Your task to perform on an android device: check data usage Image 0: 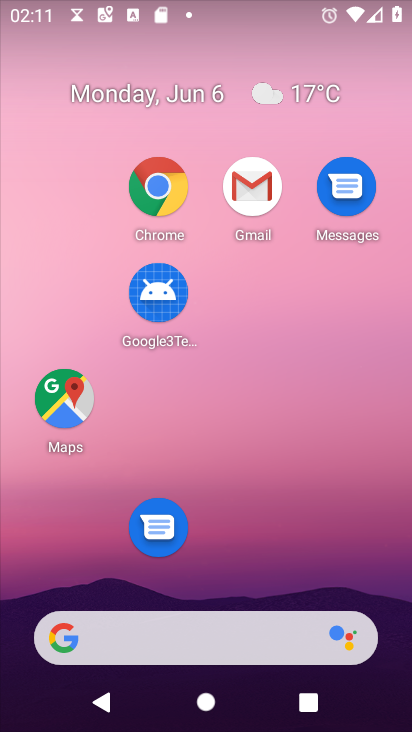
Step 0: drag from (286, 562) to (228, 83)
Your task to perform on an android device: check data usage Image 1: 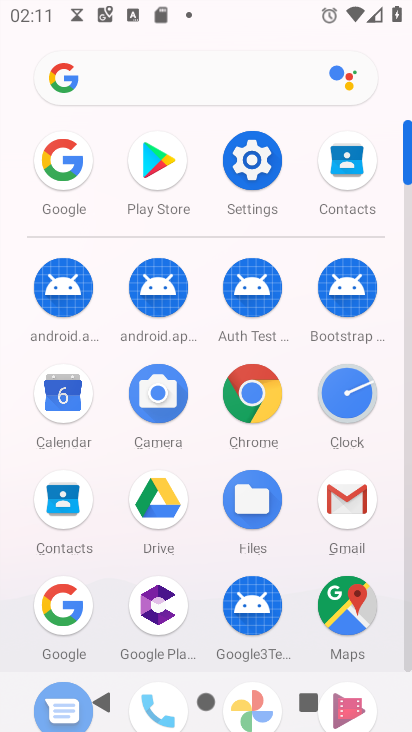
Step 1: click (257, 161)
Your task to perform on an android device: check data usage Image 2: 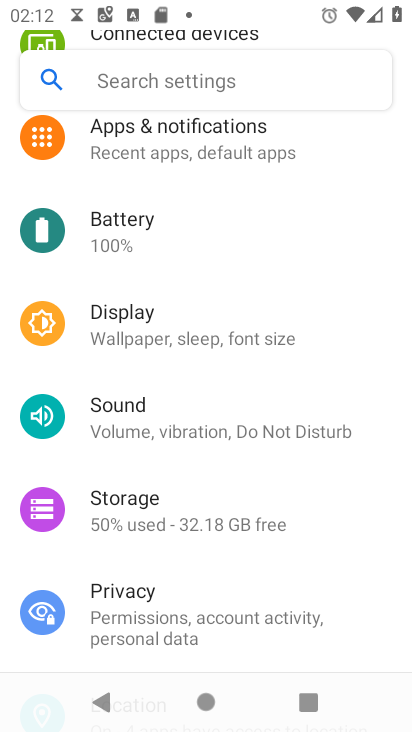
Step 2: drag from (250, 120) to (244, 539)
Your task to perform on an android device: check data usage Image 3: 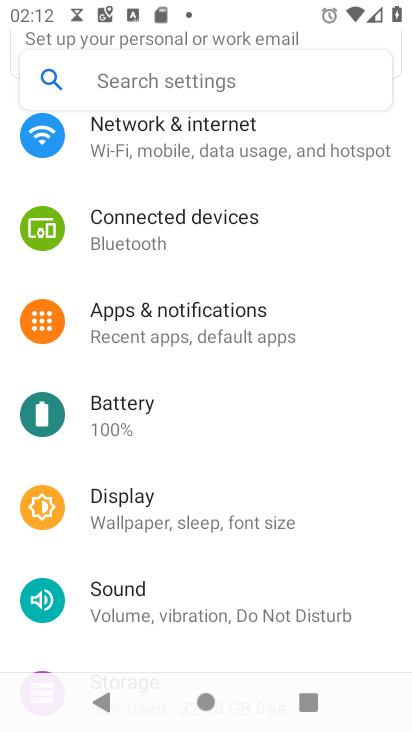
Step 3: click (316, 145)
Your task to perform on an android device: check data usage Image 4: 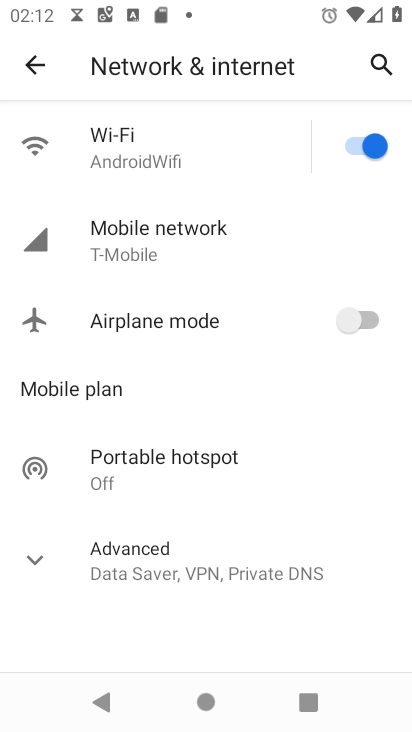
Step 4: click (225, 231)
Your task to perform on an android device: check data usage Image 5: 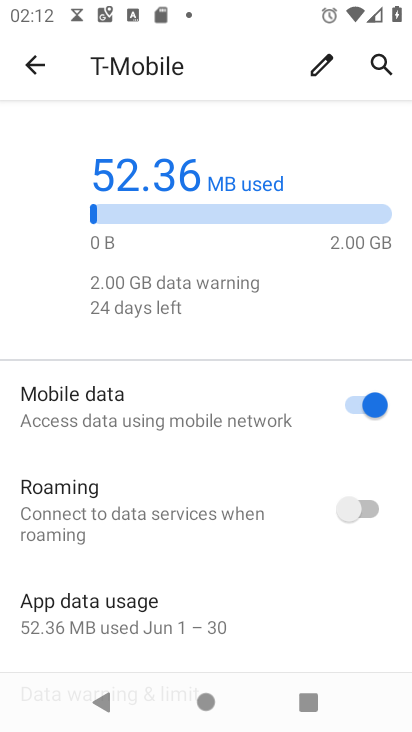
Step 5: task complete